Your task to perform on an android device: turn on airplane mode Image 0: 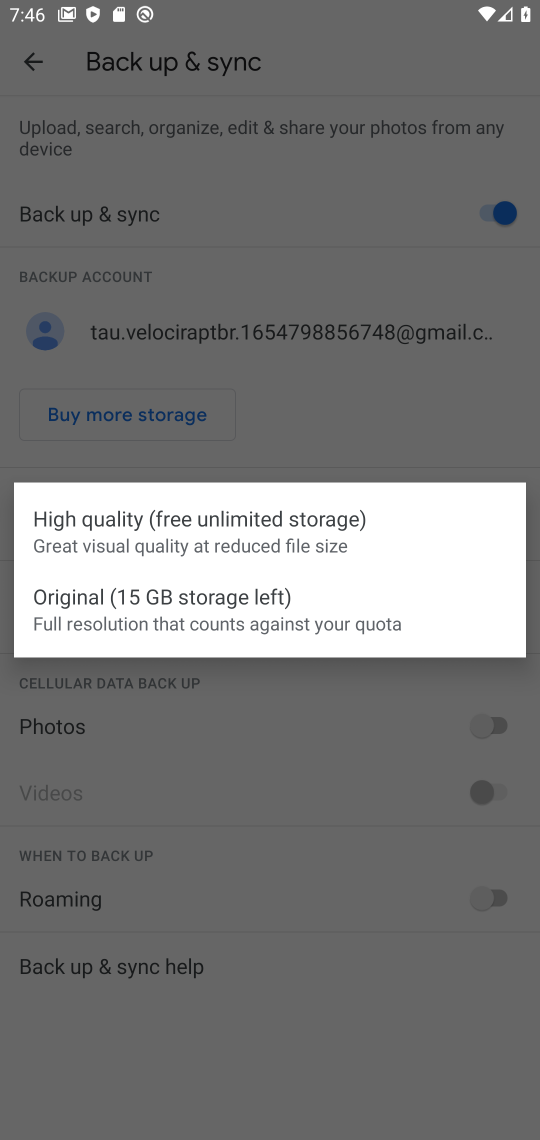
Step 0: press home button
Your task to perform on an android device: turn on airplane mode Image 1: 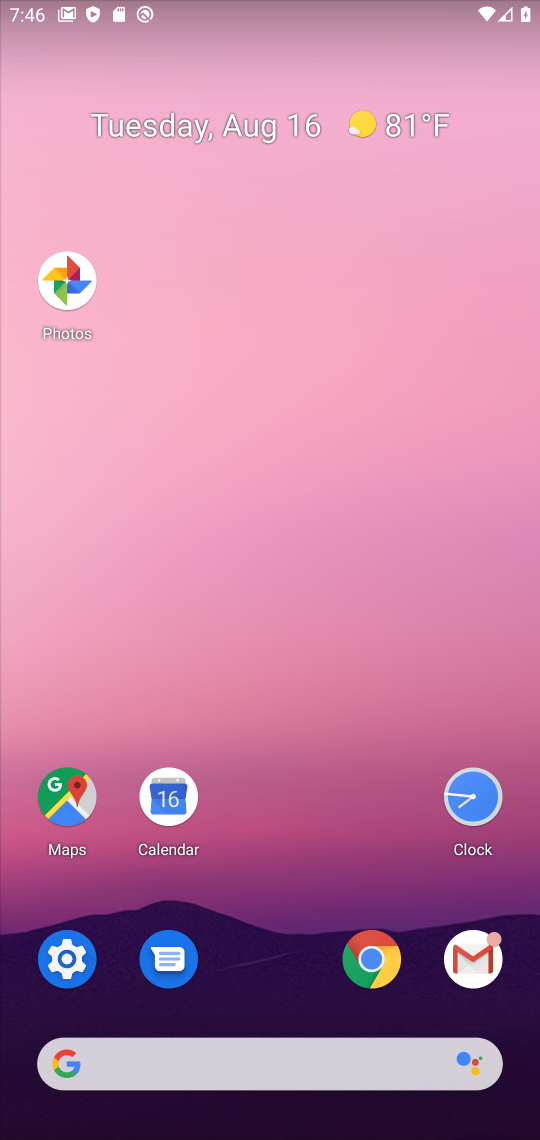
Step 1: click (63, 956)
Your task to perform on an android device: turn on airplane mode Image 2: 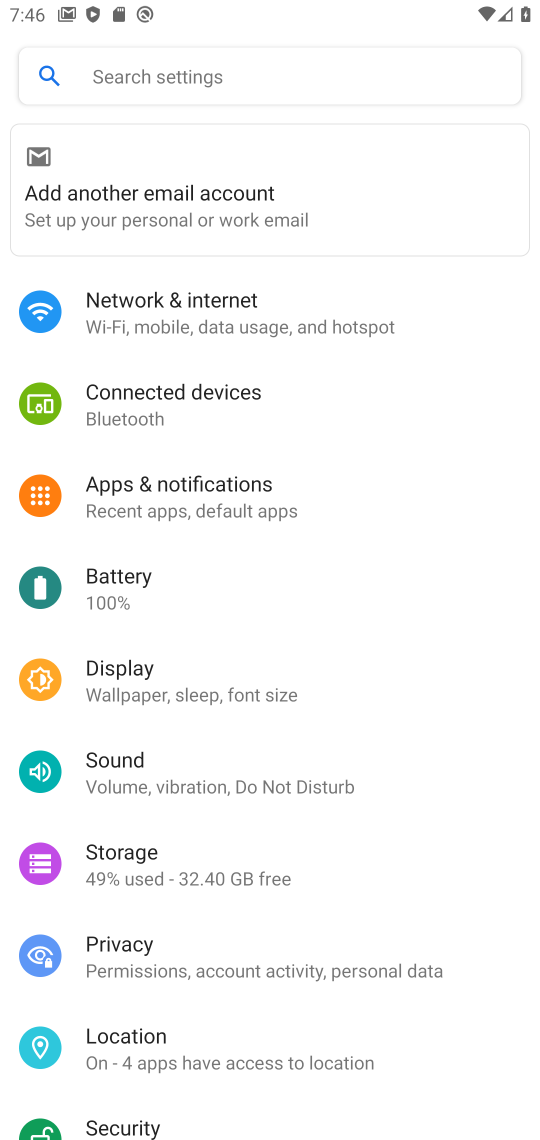
Step 2: click (179, 298)
Your task to perform on an android device: turn on airplane mode Image 3: 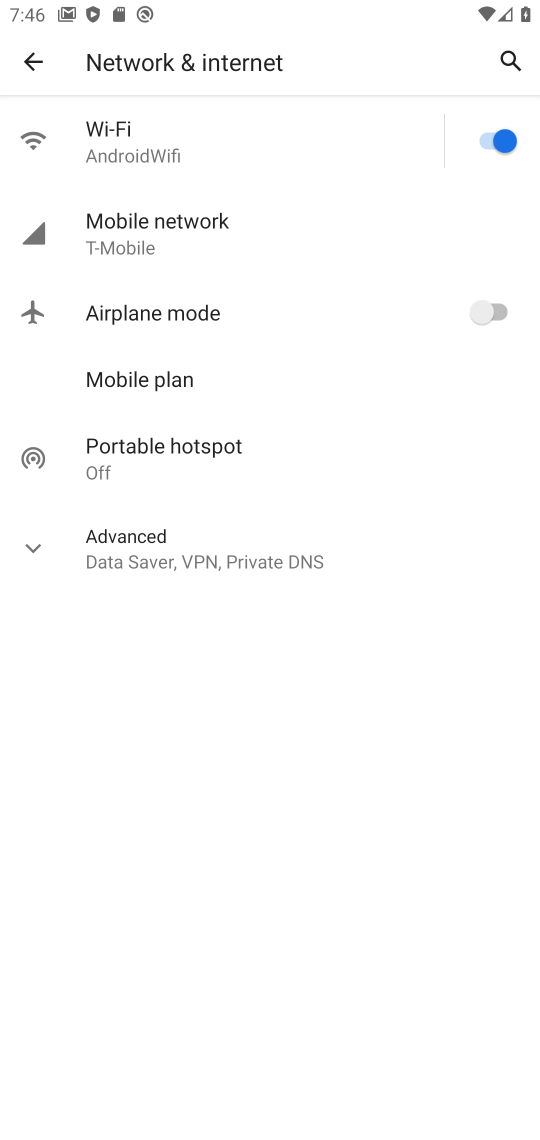
Step 3: click (491, 307)
Your task to perform on an android device: turn on airplane mode Image 4: 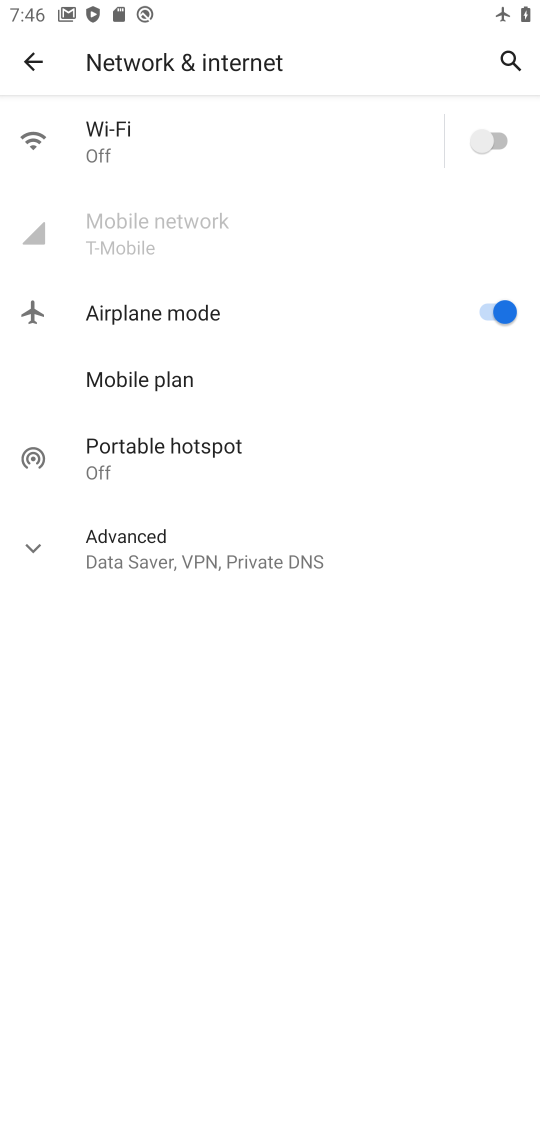
Step 4: task complete